Your task to perform on an android device: Open Reddit.com Image 0: 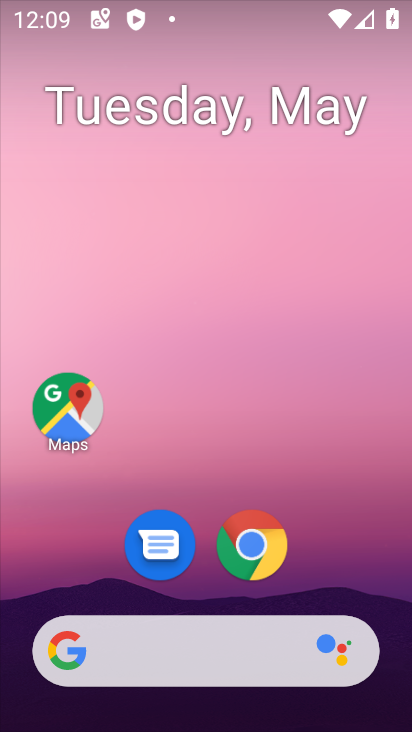
Step 0: click (183, 647)
Your task to perform on an android device: Open Reddit.com Image 1: 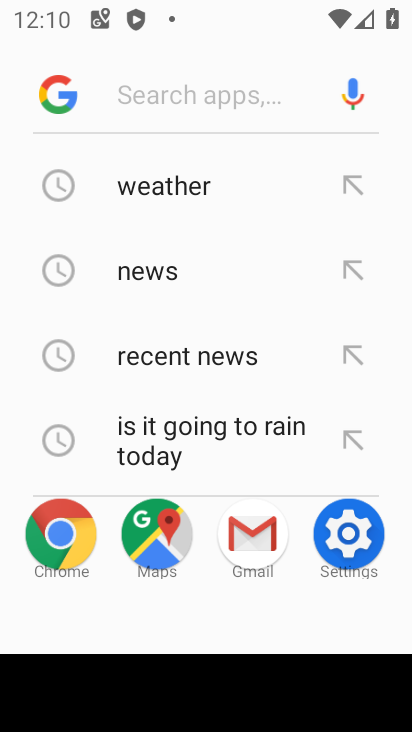
Step 1: type "reddit.com"
Your task to perform on an android device: Open Reddit.com Image 2: 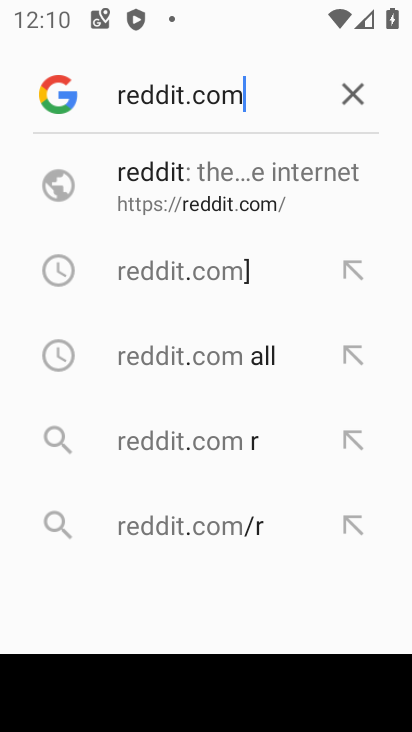
Step 2: click (380, 179)
Your task to perform on an android device: Open Reddit.com Image 3: 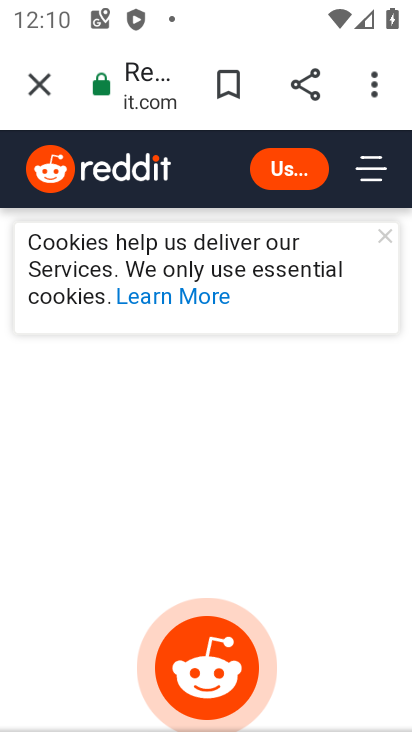
Step 3: task complete